Your task to perform on an android device: Go to privacy settings Image 0: 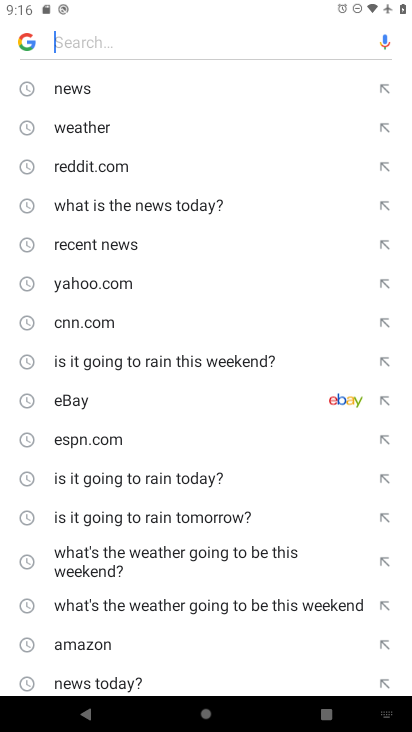
Step 0: press home button
Your task to perform on an android device: Go to privacy settings Image 1: 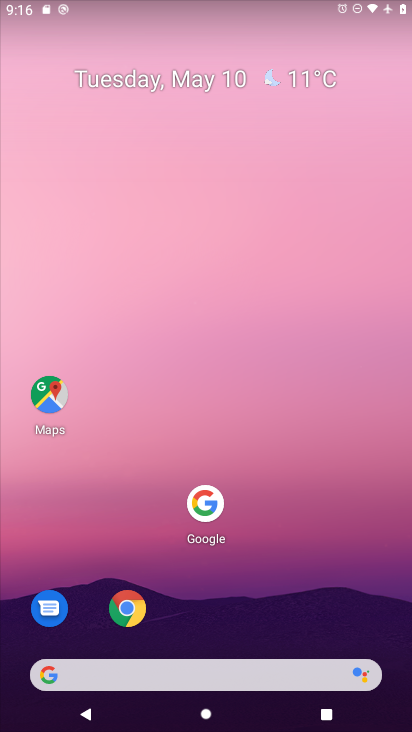
Step 1: drag from (165, 670) to (263, 83)
Your task to perform on an android device: Go to privacy settings Image 2: 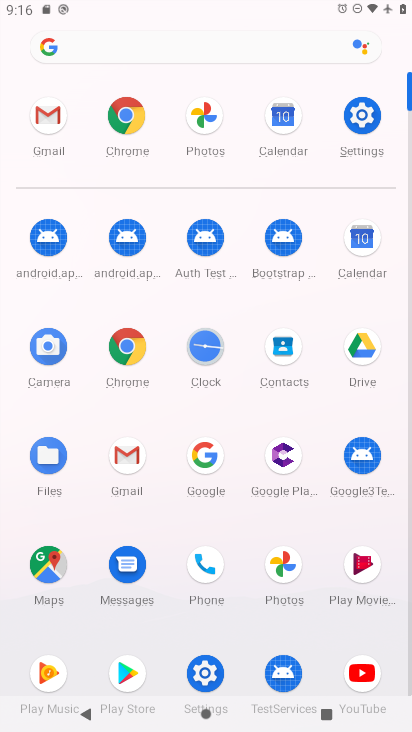
Step 2: click (362, 115)
Your task to perform on an android device: Go to privacy settings Image 3: 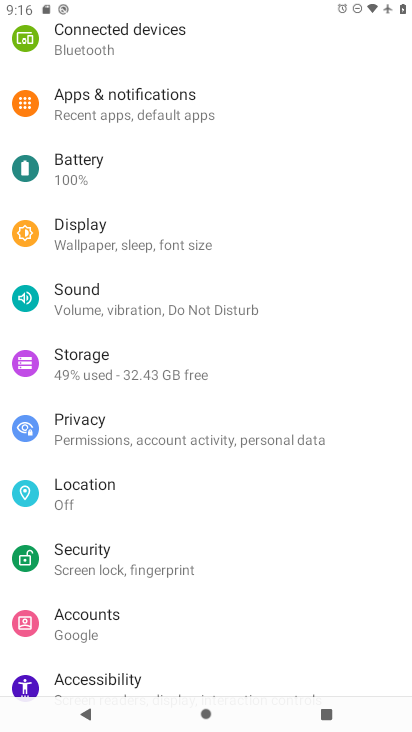
Step 3: click (91, 426)
Your task to perform on an android device: Go to privacy settings Image 4: 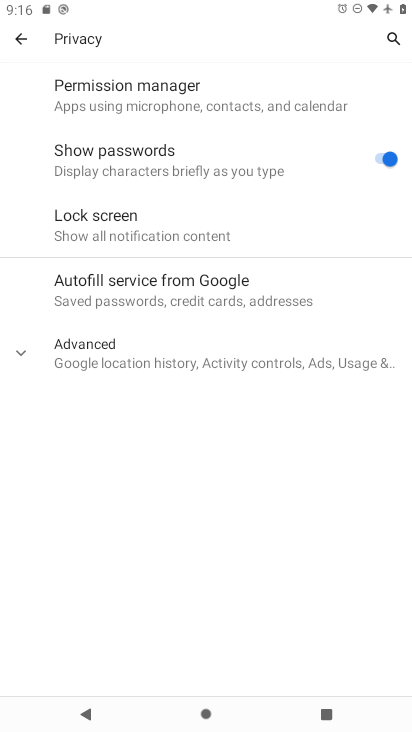
Step 4: task complete